Your task to perform on an android device: Open the calendar and show me this week's events? Image 0: 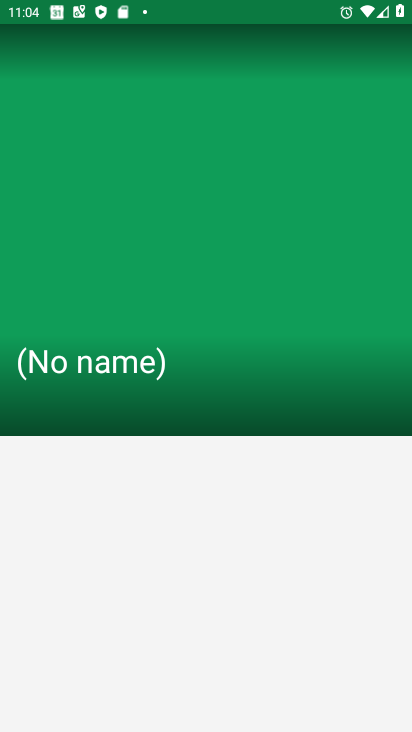
Step 0: drag from (213, 648) to (261, 279)
Your task to perform on an android device: Open the calendar and show me this week's events? Image 1: 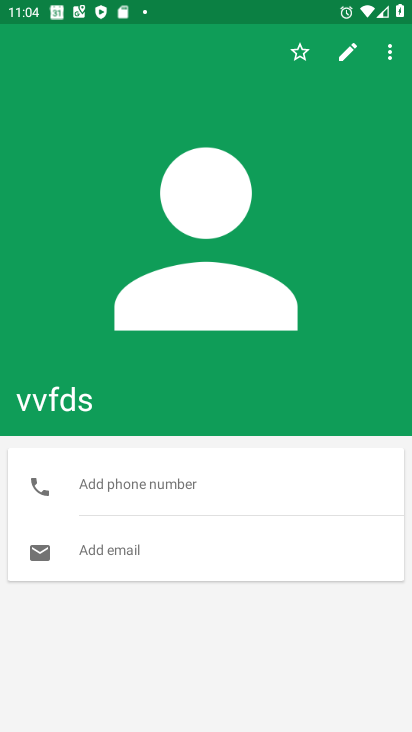
Step 1: press home button
Your task to perform on an android device: Open the calendar and show me this week's events? Image 2: 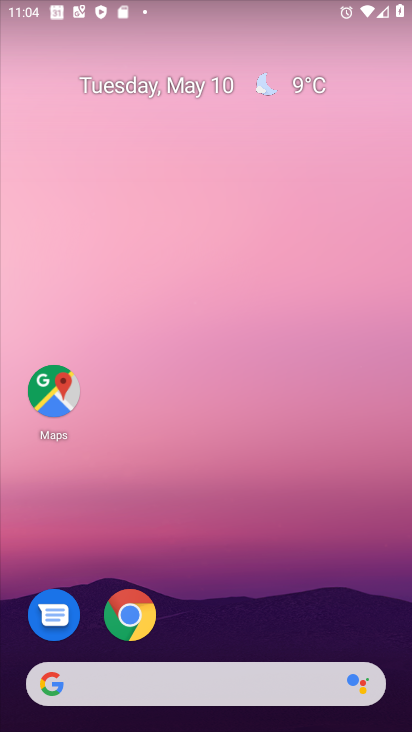
Step 2: drag from (209, 647) to (245, 132)
Your task to perform on an android device: Open the calendar and show me this week's events? Image 3: 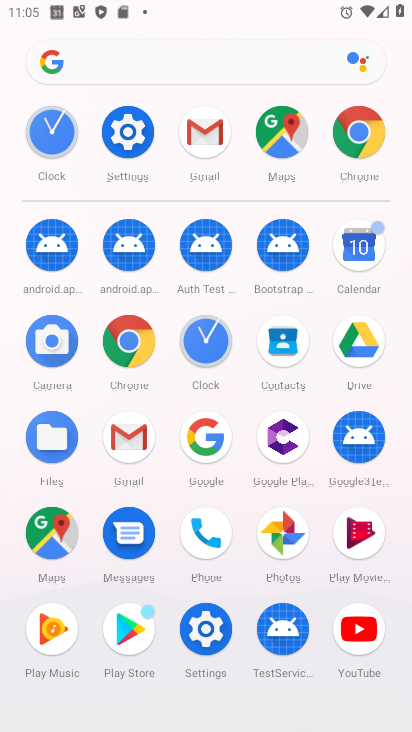
Step 3: click (359, 243)
Your task to perform on an android device: Open the calendar and show me this week's events? Image 4: 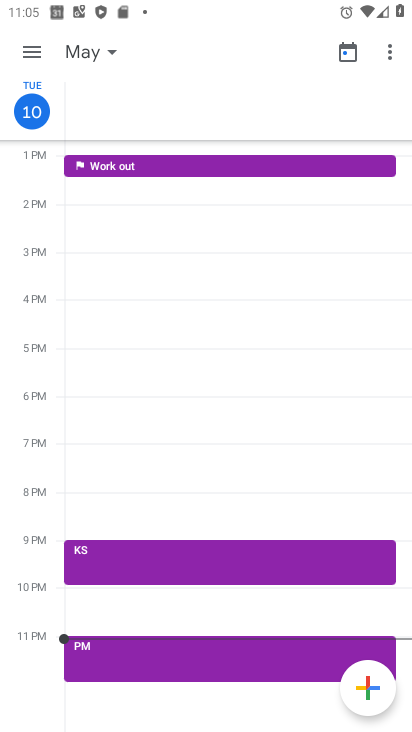
Step 4: click (31, 52)
Your task to perform on an android device: Open the calendar and show me this week's events? Image 5: 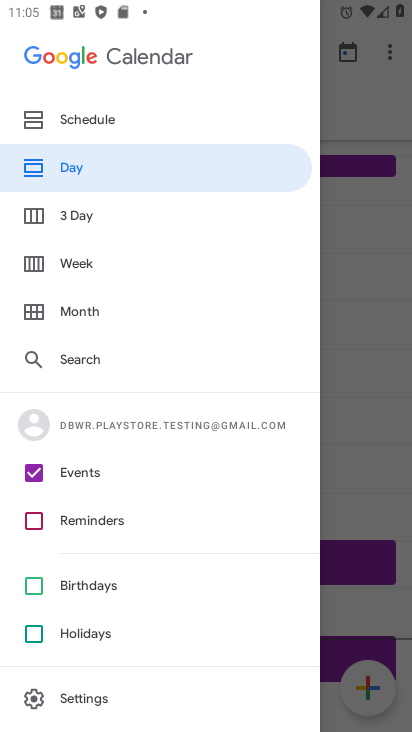
Step 5: click (76, 260)
Your task to perform on an android device: Open the calendar and show me this week's events? Image 6: 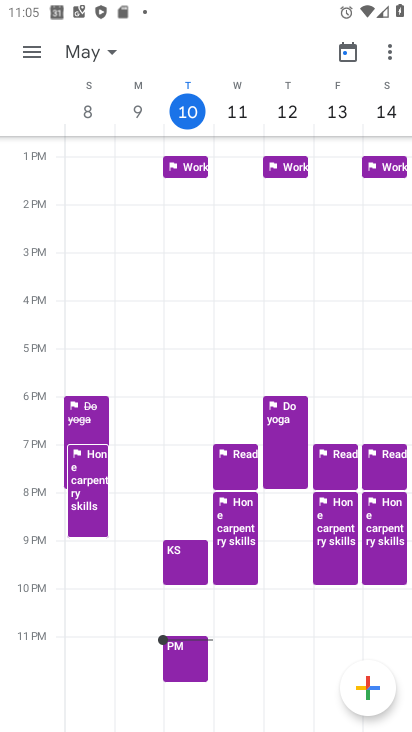
Step 6: drag from (395, 109) to (59, 124)
Your task to perform on an android device: Open the calendar and show me this week's events? Image 7: 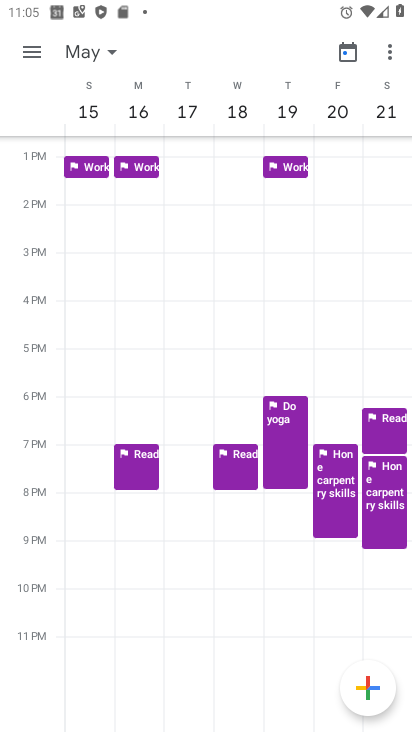
Step 7: drag from (82, 119) to (410, 106)
Your task to perform on an android device: Open the calendar and show me this week's events? Image 8: 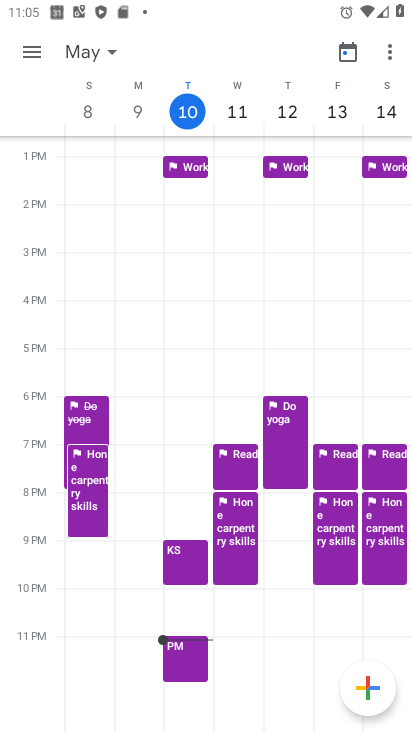
Step 8: click (177, 116)
Your task to perform on an android device: Open the calendar and show me this week's events? Image 9: 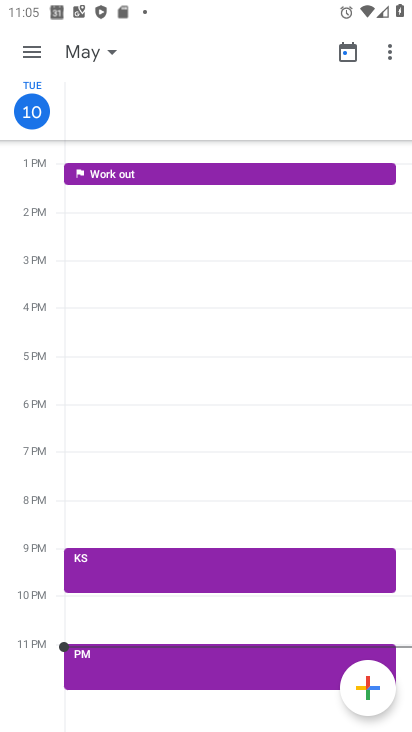
Step 9: click (45, 128)
Your task to perform on an android device: Open the calendar and show me this week's events? Image 10: 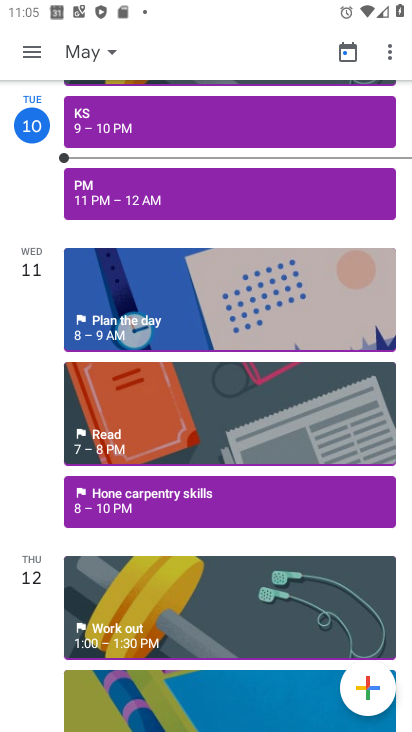
Step 10: task complete